Your task to perform on an android device: Open location settings Image 0: 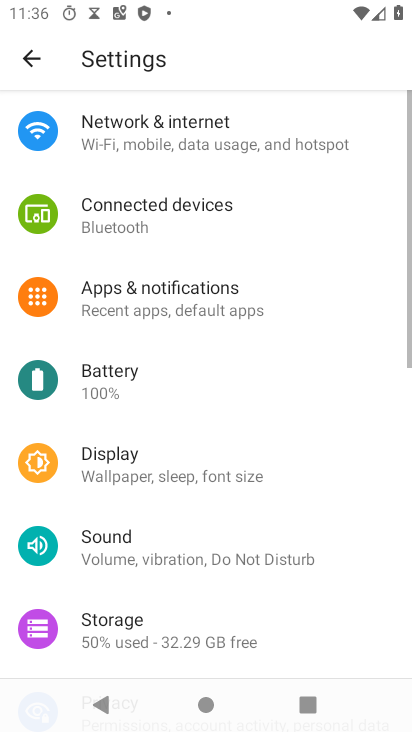
Step 0: press home button
Your task to perform on an android device: Open location settings Image 1: 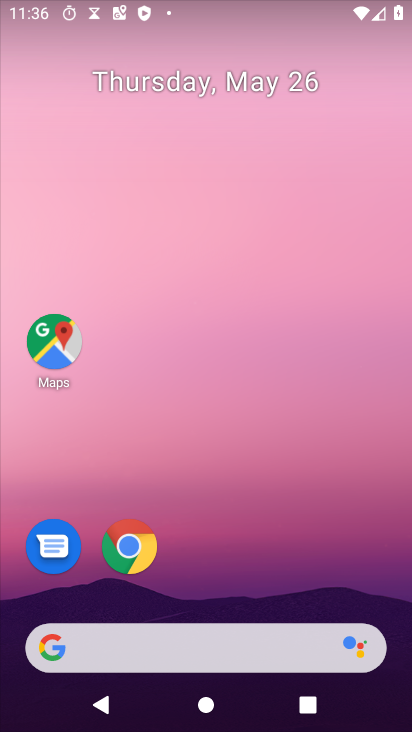
Step 1: drag from (332, 598) to (312, 194)
Your task to perform on an android device: Open location settings Image 2: 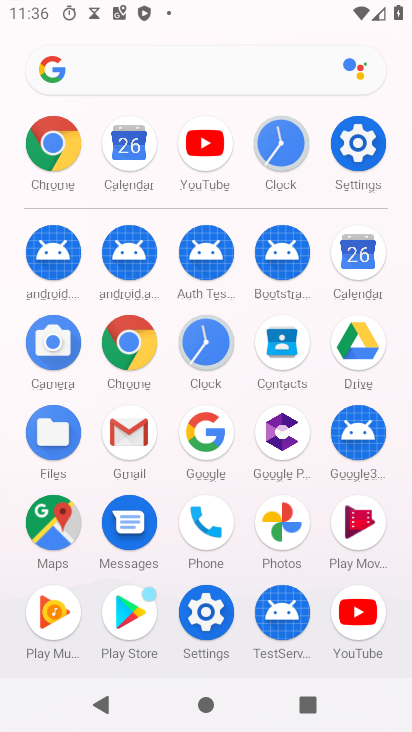
Step 2: click (368, 148)
Your task to perform on an android device: Open location settings Image 3: 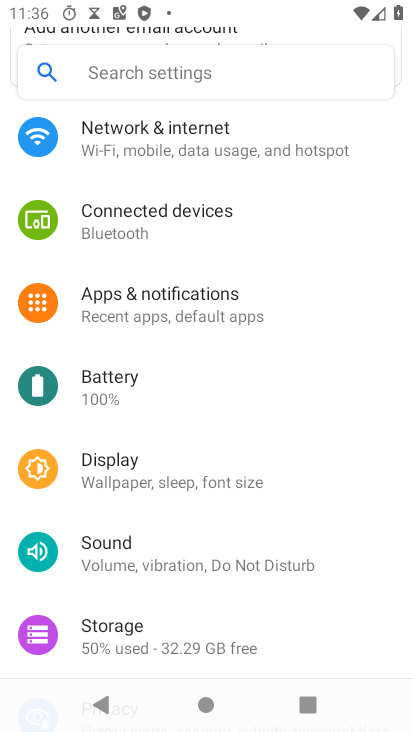
Step 3: drag from (175, 590) to (253, 288)
Your task to perform on an android device: Open location settings Image 4: 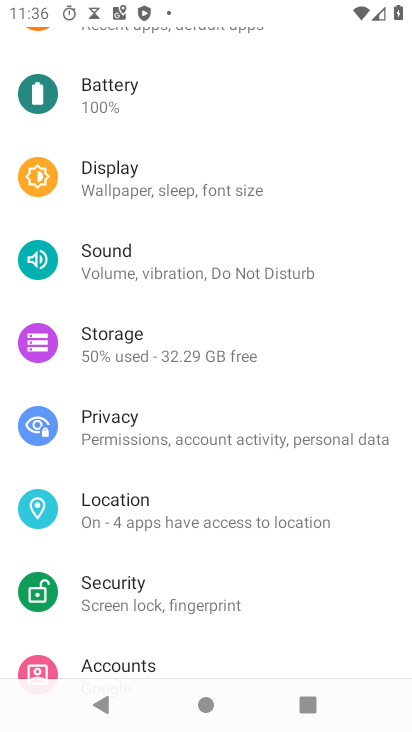
Step 4: drag from (215, 549) to (262, 379)
Your task to perform on an android device: Open location settings Image 5: 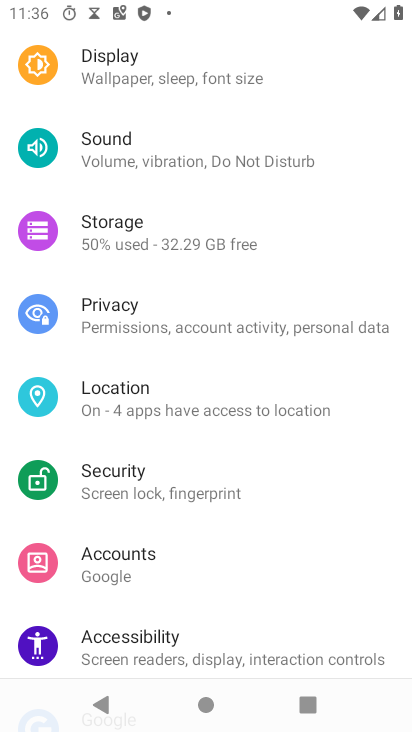
Step 5: click (194, 409)
Your task to perform on an android device: Open location settings Image 6: 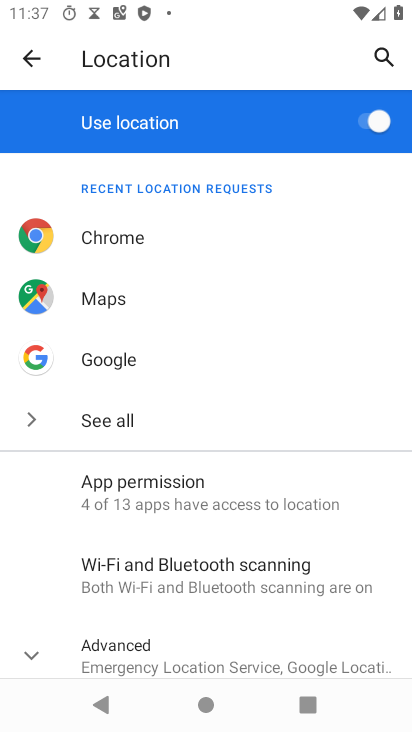
Step 6: drag from (266, 603) to (263, 176)
Your task to perform on an android device: Open location settings Image 7: 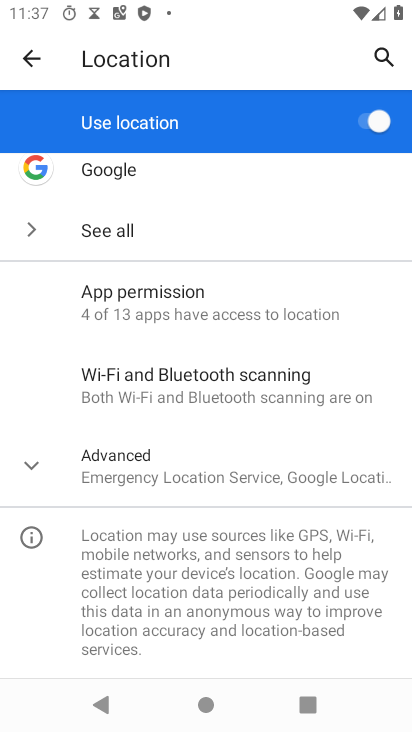
Step 7: click (209, 481)
Your task to perform on an android device: Open location settings Image 8: 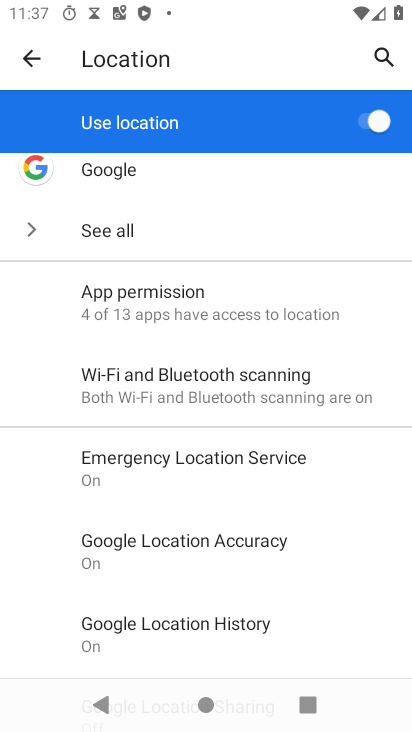
Step 8: task complete